Your task to perform on an android device: toggle sleep mode Image 0: 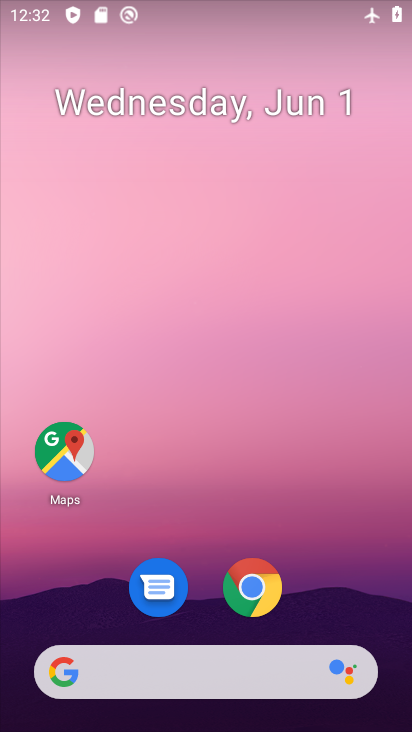
Step 0: drag from (331, 553) to (216, 156)
Your task to perform on an android device: toggle sleep mode Image 1: 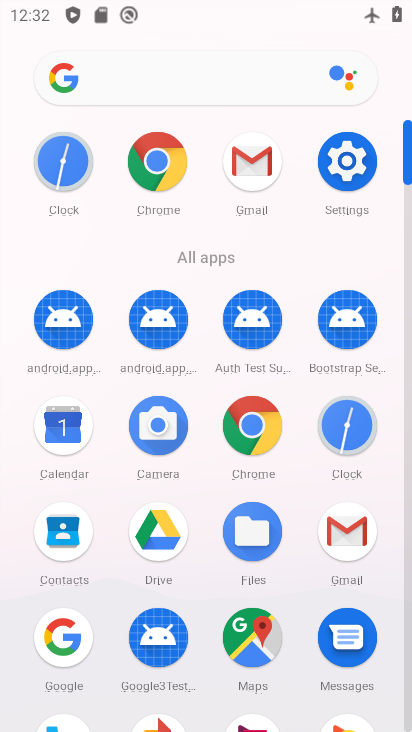
Step 1: click (344, 159)
Your task to perform on an android device: toggle sleep mode Image 2: 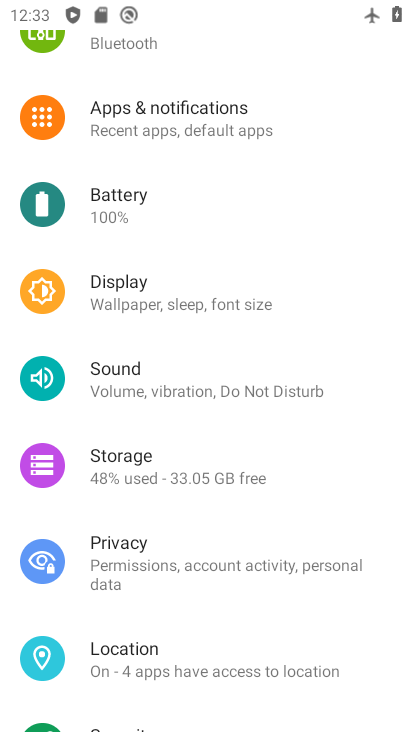
Step 2: click (119, 284)
Your task to perform on an android device: toggle sleep mode Image 3: 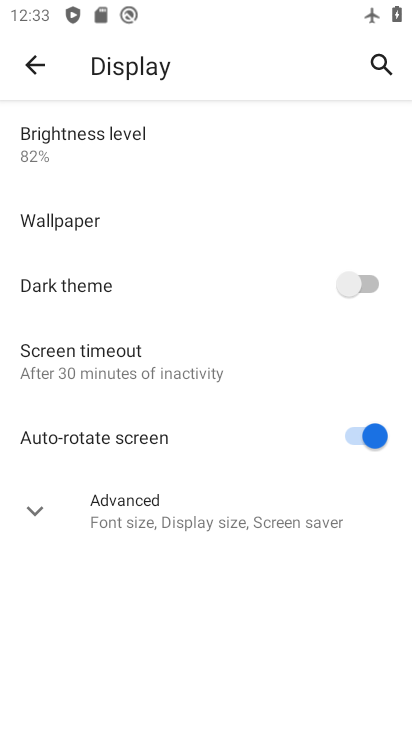
Step 3: click (37, 72)
Your task to perform on an android device: toggle sleep mode Image 4: 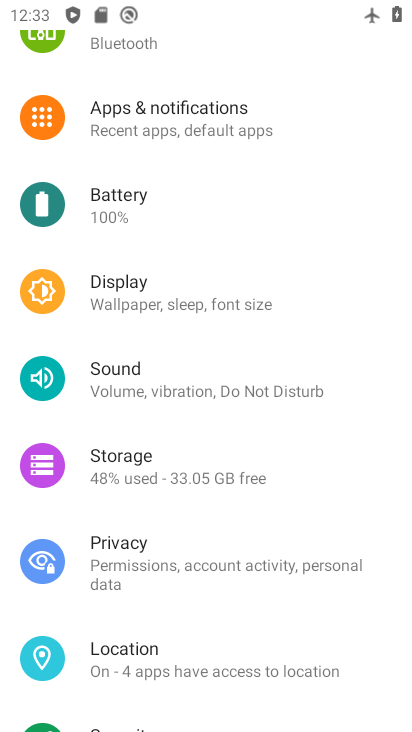
Step 4: task complete